Your task to perform on an android device: Show me productivity apps on the Play Store Image 0: 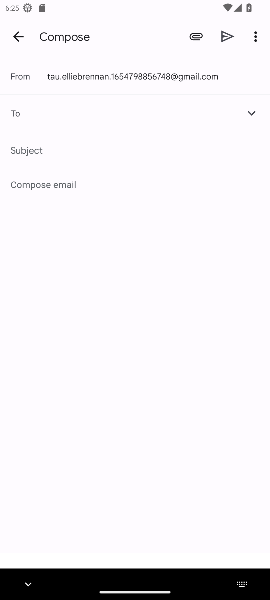
Step 0: press home button
Your task to perform on an android device: Show me productivity apps on the Play Store Image 1: 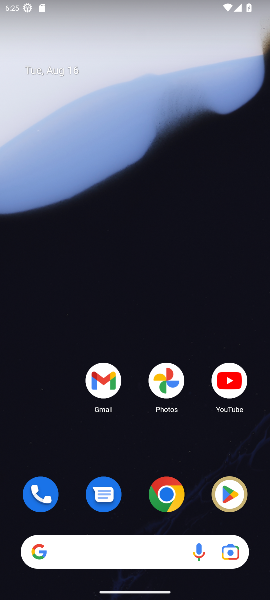
Step 1: click (237, 490)
Your task to perform on an android device: Show me productivity apps on the Play Store Image 2: 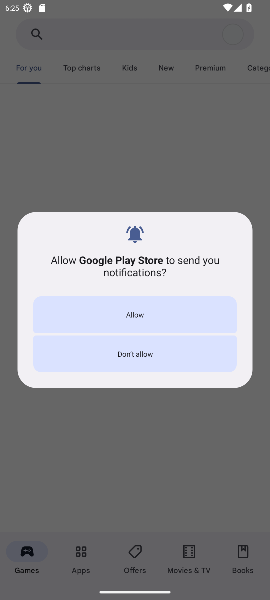
Step 2: task complete